Your task to perform on an android device: Search for Italian restaurants on Maps Image 0: 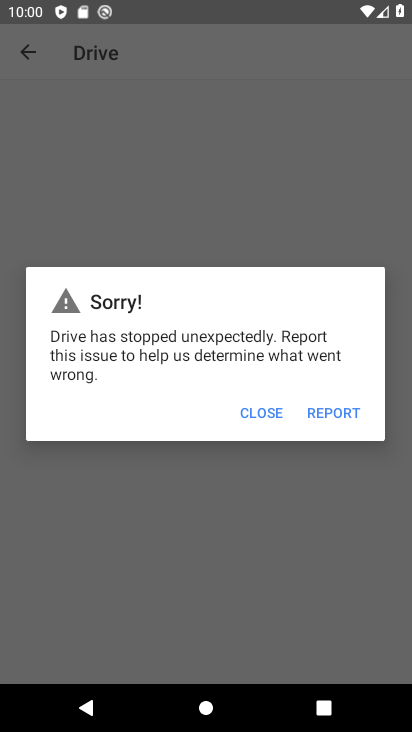
Step 0: press home button
Your task to perform on an android device: Search for Italian restaurants on Maps Image 1: 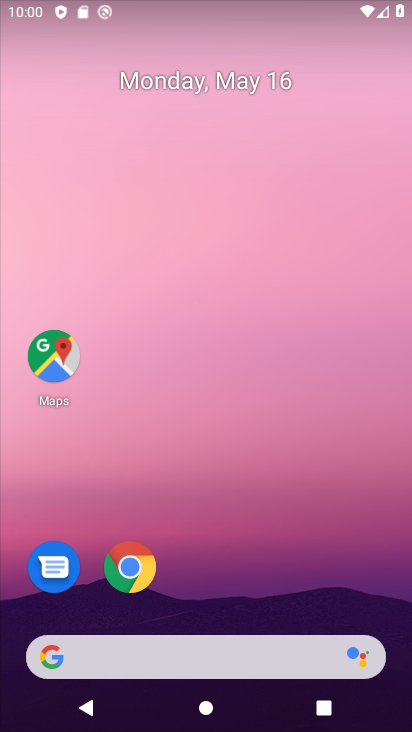
Step 1: drag from (222, 626) to (238, 207)
Your task to perform on an android device: Search for Italian restaurants on Maps Image 2: 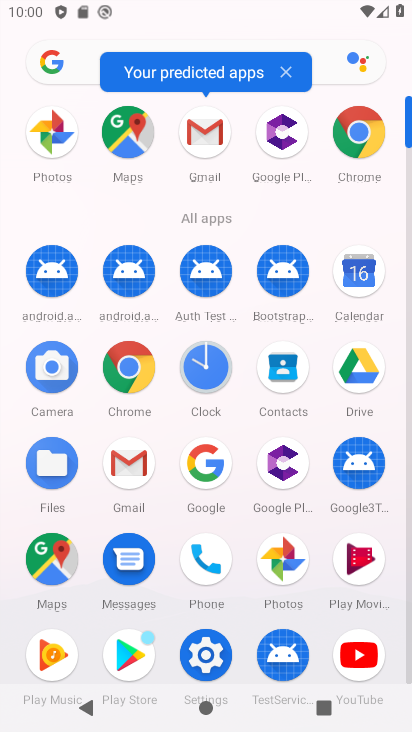
Step 2: click (53, 560)
Your task to perform on an android device: Search for Italian restaurants on Maps Image 3: 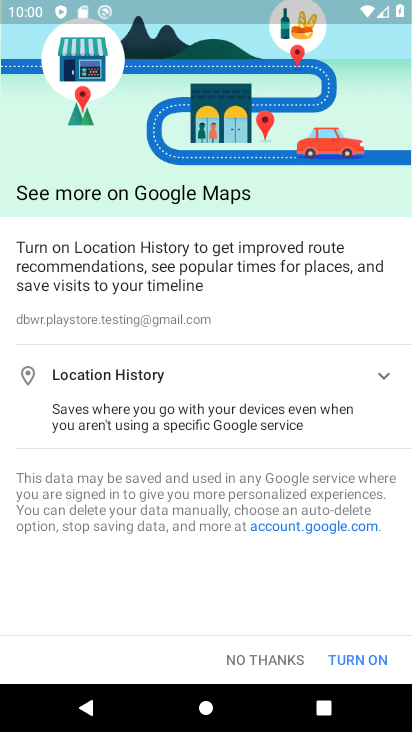
Step 3: click (367, 660)
Your task to perform on an android device: Search for Italian restaurants on Maps Image 4: 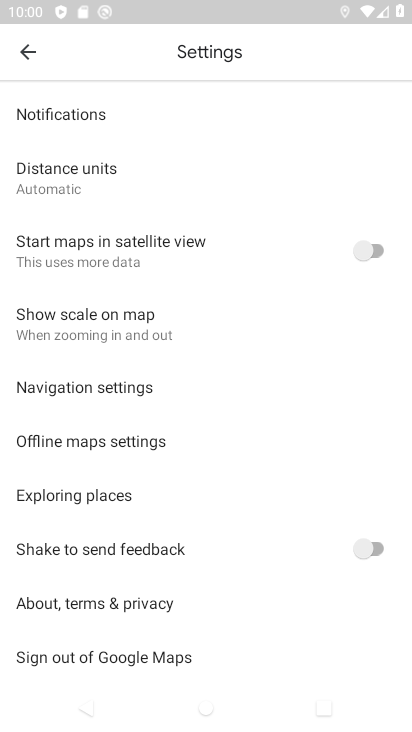
Step 4: click (28, 43)
Your task to perform on an android device: Search for Italian restaurants on Maps Image 5: 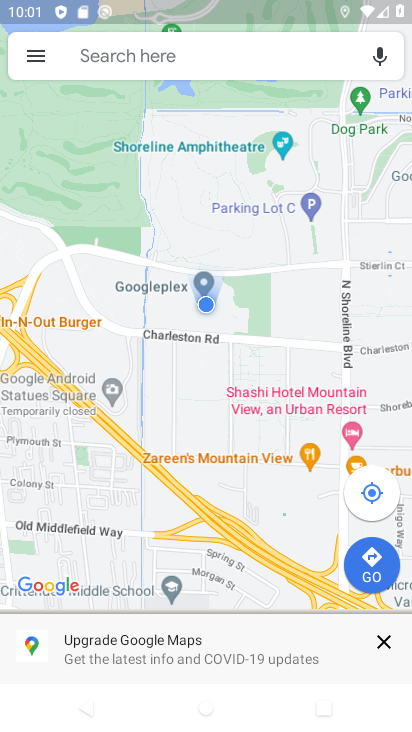
Step 5: click (170, 59)
Your task to perform on an android device: Search for Italian restaurants on Maps Image 6: 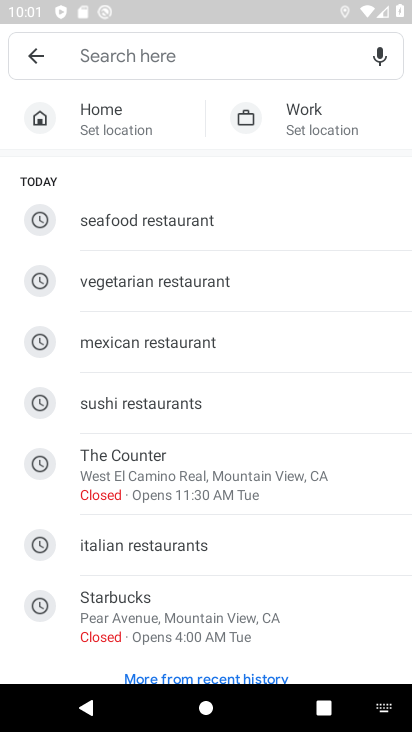
Step 6: click (174, 539)
Your task to perform on an android device: Search for Italian restaurants on Maps Image 7: 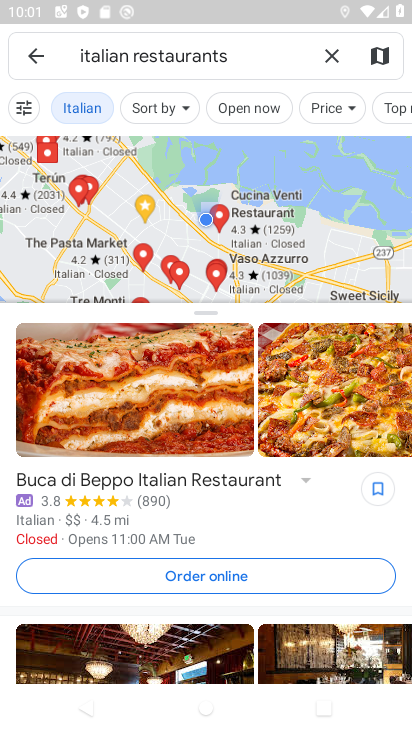
Step 7: task complete